Your task to perform on an android device: show emergency info Image 0: 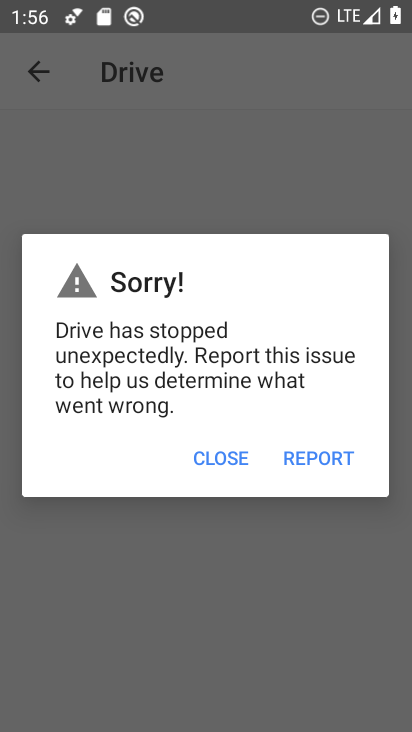
Step 0: press home button
Your task to perform on an android device: show emergency info Image 1: 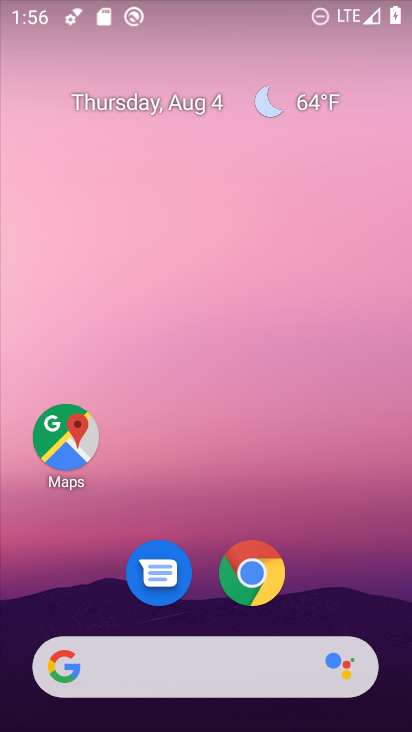
Step 1: drag from (340, 558) to (257, 34)
Your task to perform on an android device: show emergency info Image 2: 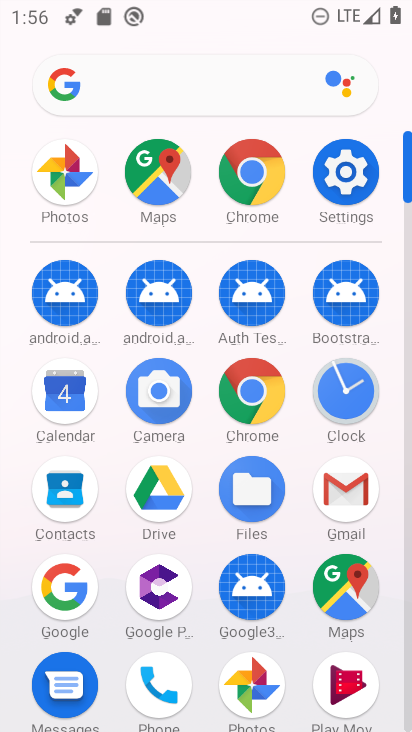
Step 2: click (341, 152)
Your task to perform on an android device: show emergency info Image 3: 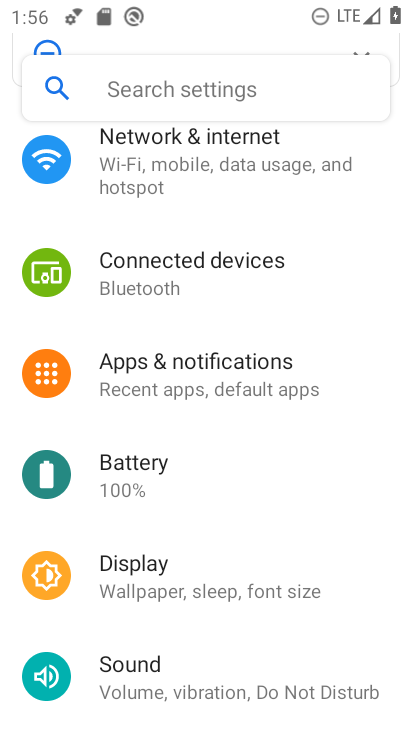
Step 3: drag from (263, 542) to (252, 110)
Your task to perform on an android device: show emergency info Image 4: 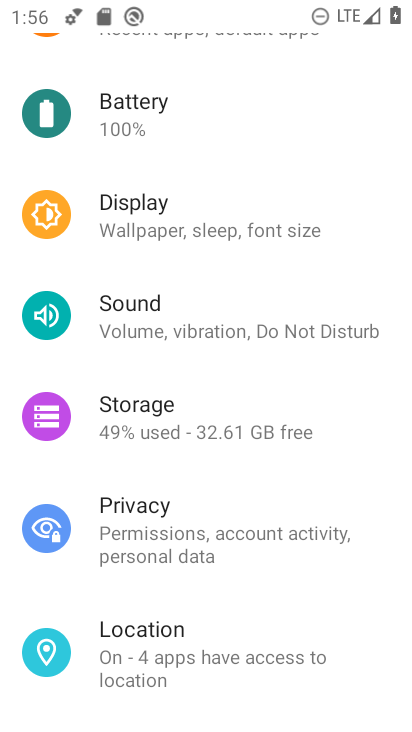
Step 4: drag from (271, 602) to (291, 212)
Your task to perform on an android device: show emergency info Image 5: 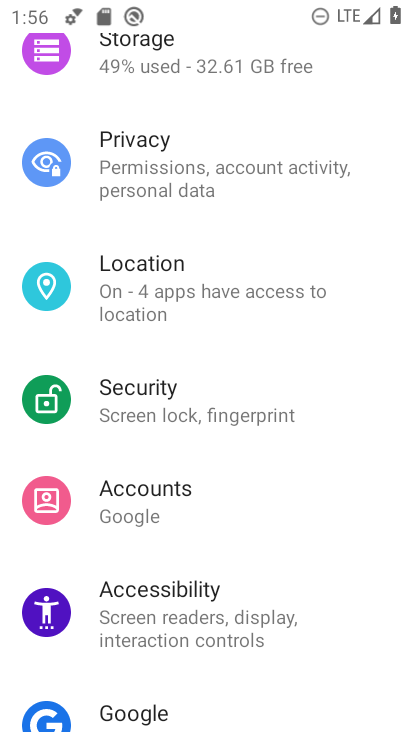
Step 5: drag from (339, 626) to (319, 225)
Your task to perform on an android device: show emergency info Image 6: 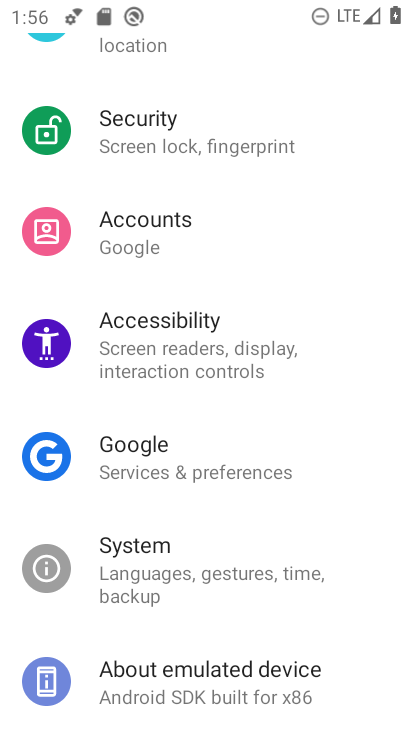
Step 6: click (237, 669)
Your task to perform on an android device: show emergency info Image 7: 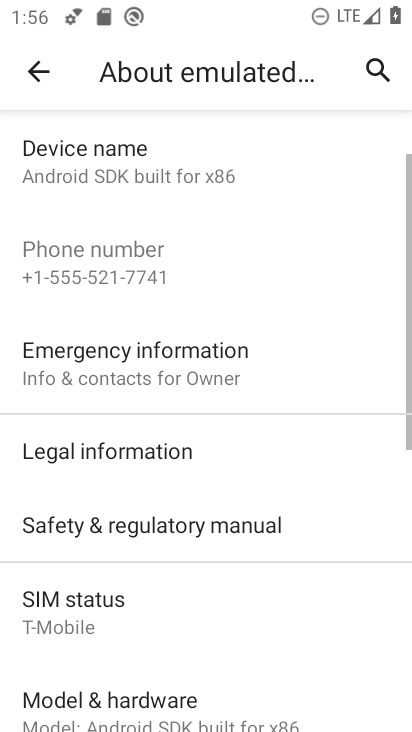
Step 7: click (194, 381)
Your task to perform on an android device: show emergency info Image 8: 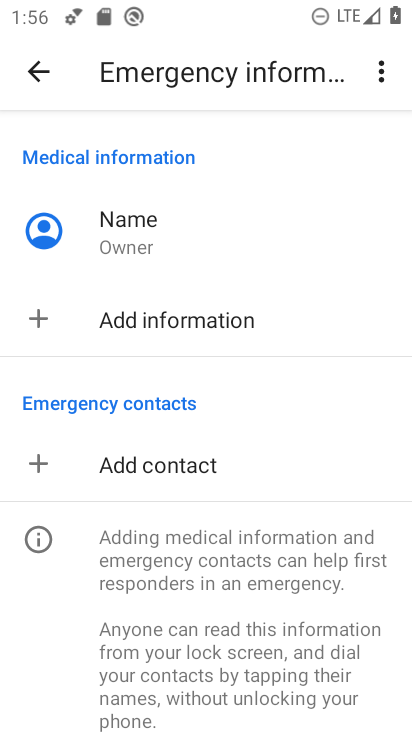
Step 8: task complete